Your task to perform on an android device: Go to settings Image 0: 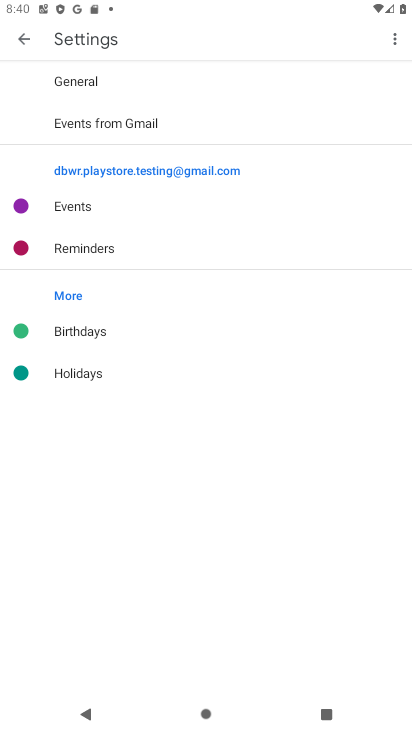
Step 0: press home button
Your task to perform on an android device: Go to settings Image 1: 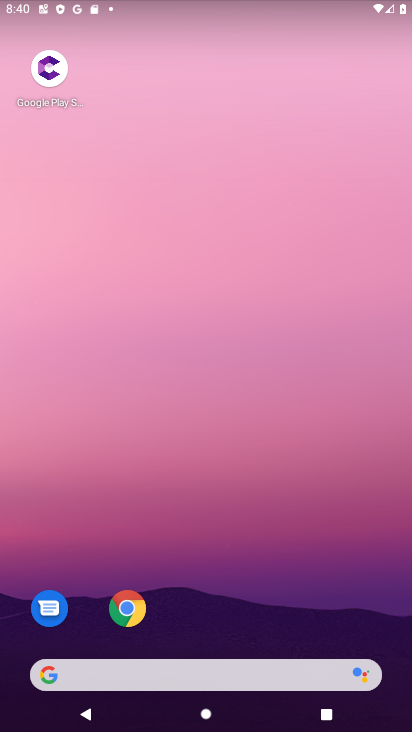
Step 1: drag from (233, 621) to (179, 156)
Your task to perform on an android device: Go to settings Image 2: 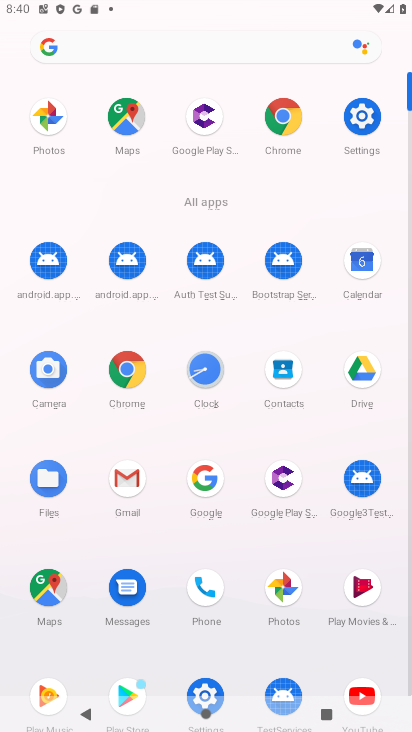
Step 2: click (215, 686)
Your task to perform on an android device: Go to settings Image 3: 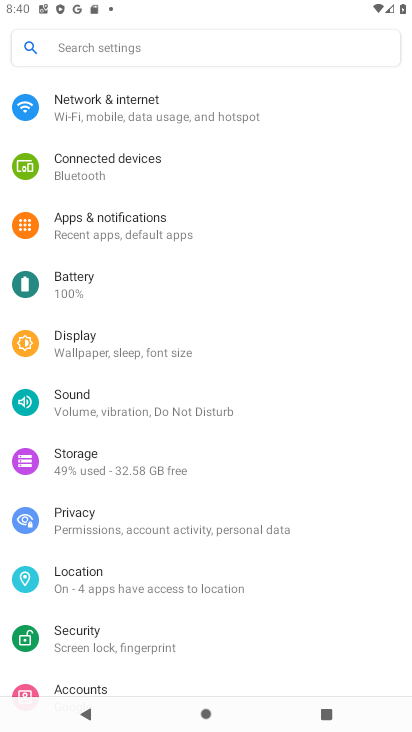
Step 3: task complete